Your task to perform on an android device: Open Android settings Image 0: 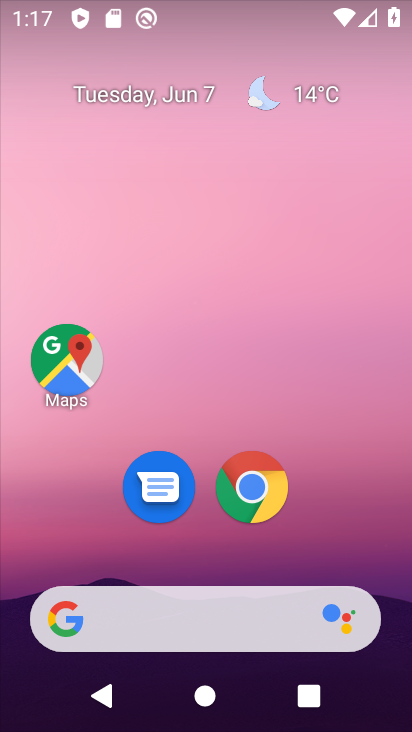
Step 0: drag from (199, 568) to (208, 28)
Your task to perform on an android device: Open Android settings Image 1: 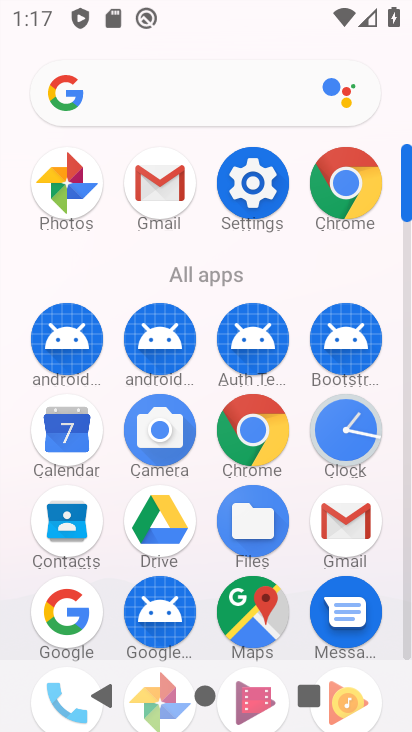
Step 1: click (270, 165)
Your task to perform on an android device: Open Android settings Image 2: 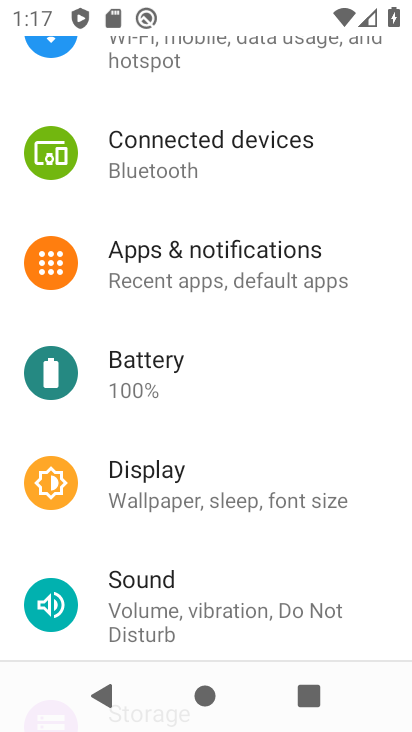
Step 2: drag from (139, 547) to (135, 5)
Your task to perform on an android device: Open Android settings Image 3: 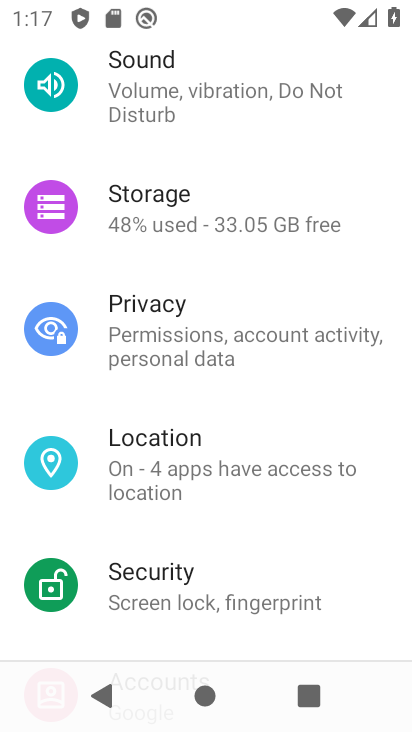
Step 3: drag from (241, 553) to (179, 11)
Your task to perform on an android device: Open Android settings Image 4: 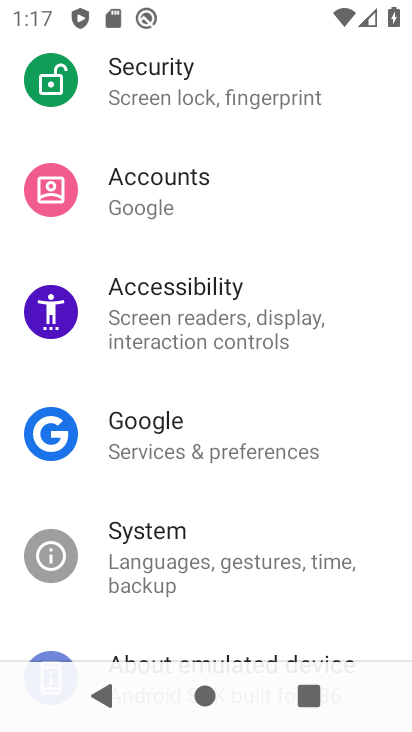
Step 4: drag from (208, 600) to (167, 82)
Your task to perform on an android device: Open Android settings Image 5: 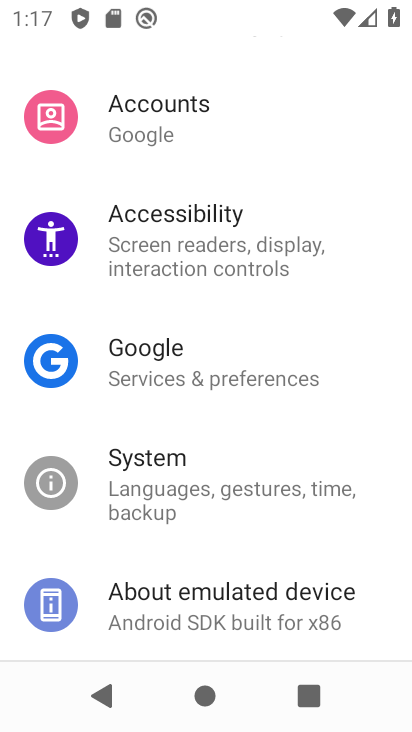
Step 5: click (172, 592)
Your task to perform on an android device: Open Android settings Image 6: 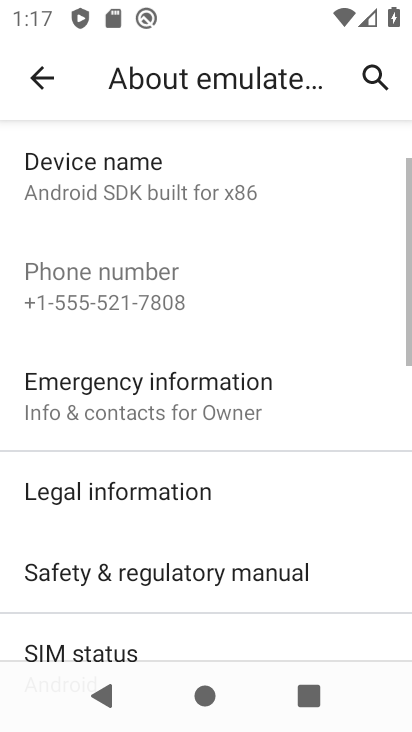
Step 6: task complete